Your task to perform on an android device: turn on improve location accuracy Image 0: 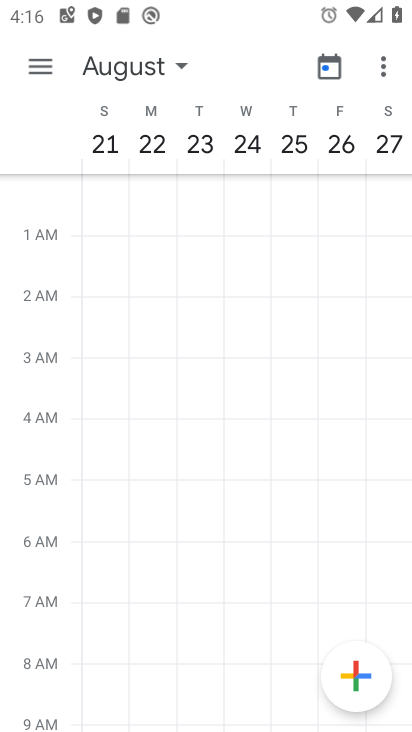
Step 0: press home button
Your task to perform on an android device: turn on improve location accuracy Image 1: 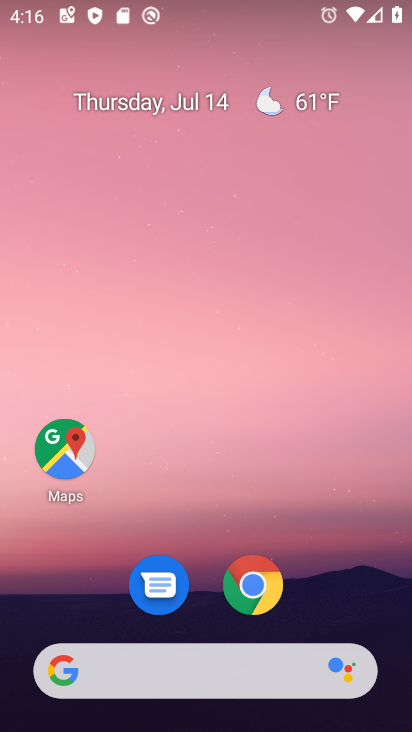
Step 1: drag from (275, 457) to (294, 16)
Your task to perform on an android device: turn on improve location accuracy Image 2: 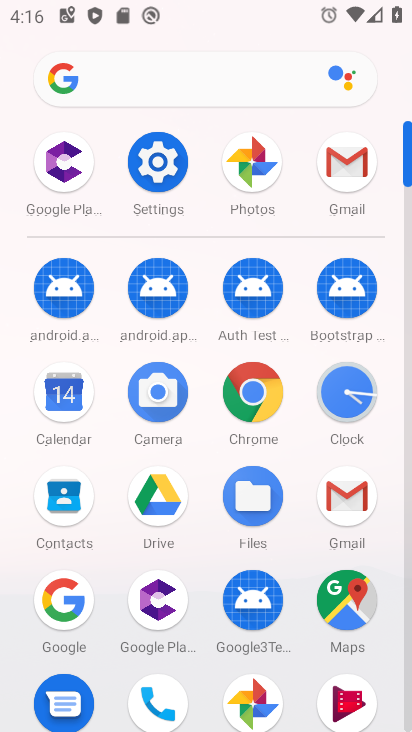
Step 2: click (154, 165)
Your task to perform on an android device: turn on improve location accuracy Image 3: 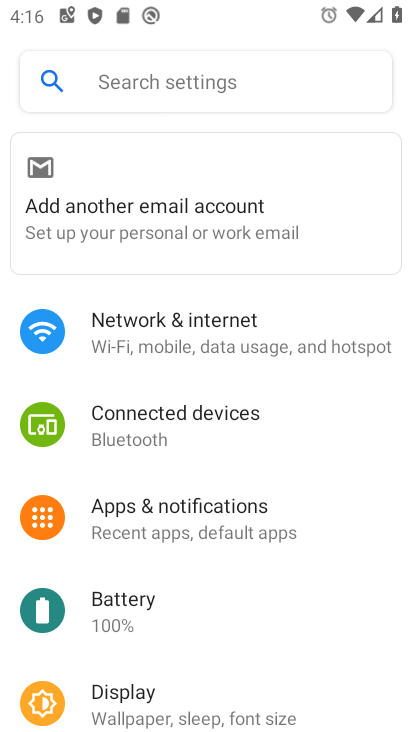
Step 3: drag from (229, 604) to (263, 184)
Your task to perform on an android device: turn on improve location accuracy Image 4: 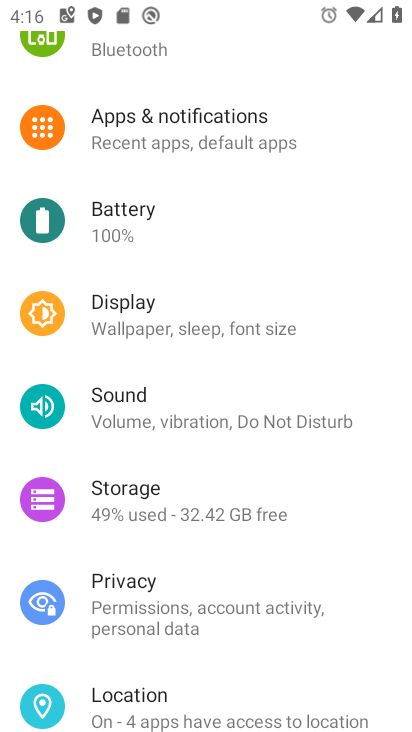
Step 4: click (184, 700)
Your task to perform on an android device: turn on improve location accuracy Image 5: 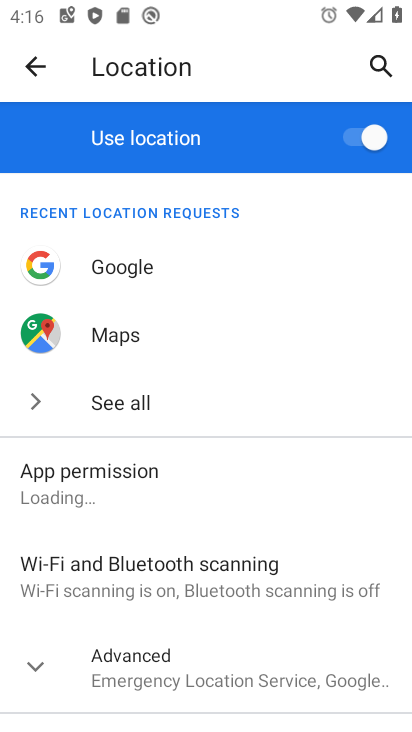
Step 5: drag from (186, 599) to (256, 206)
Your task to perform on an android device: turn on improve location accuracy Image 6: 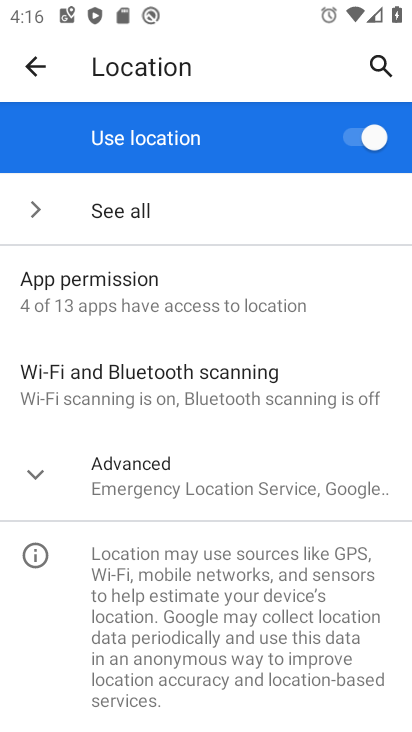
Step 6: click (38, 475)
Your task to perform on an android device: turn on improve location accuracy Image 7: 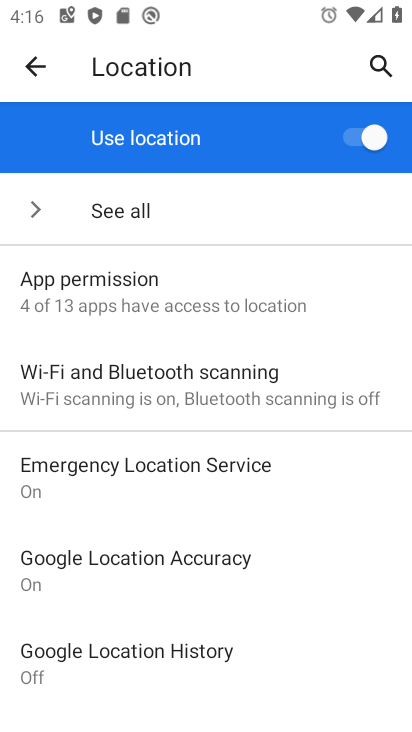
Step 7: click (220, 561)
Your task to perform on an android device: turn on improve location accuracy Image 8: 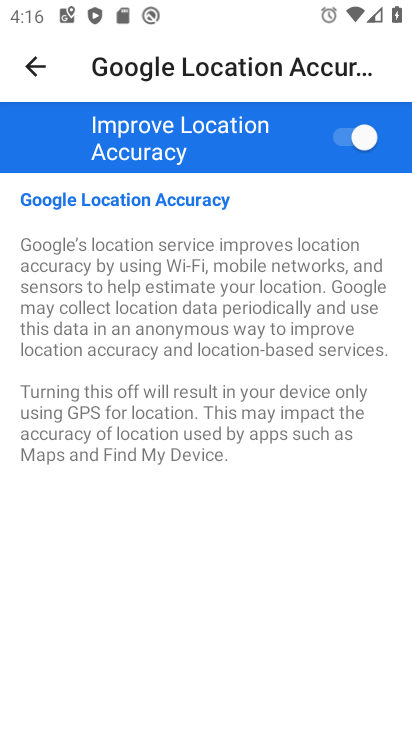
Step 8: task complete